Your task to perform on an android device: open app "DoorDash - Dasher" (install if not already installed) Image 0: 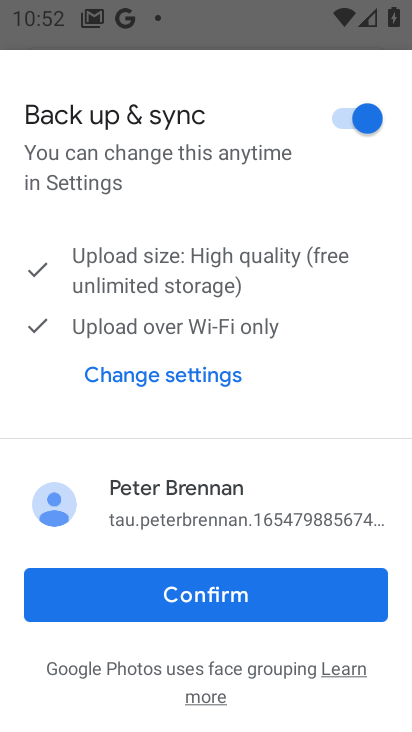
Step 0: press home button
Your task to perform on an android device: open app "DoorDash - Dasher" (install if not already installed) Image 1: 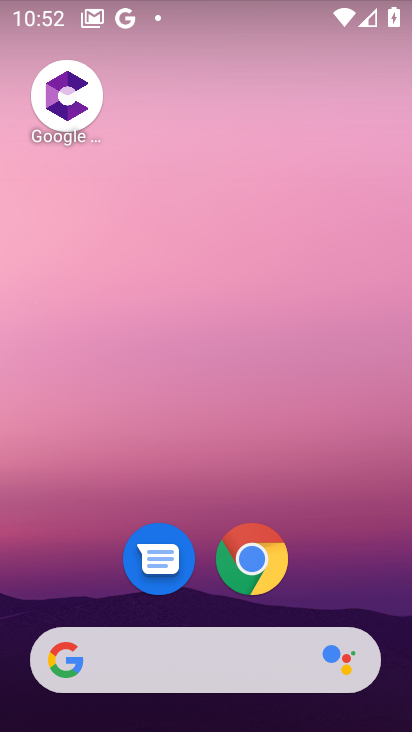
Step 1: drag from (96, 564) to (218, 2)
Your task to perform on an android device: open app "DoorDash - Dasher" (install if not already installed) Image 2: 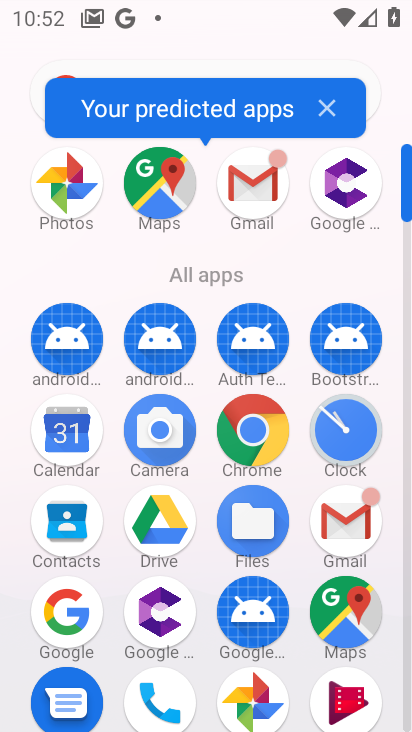
Step 2: drag from (181, 581) to (302, 33)
Your task to perform on an android device: open app "DoorDash - Dasher" (install if not already installed) Image 3: 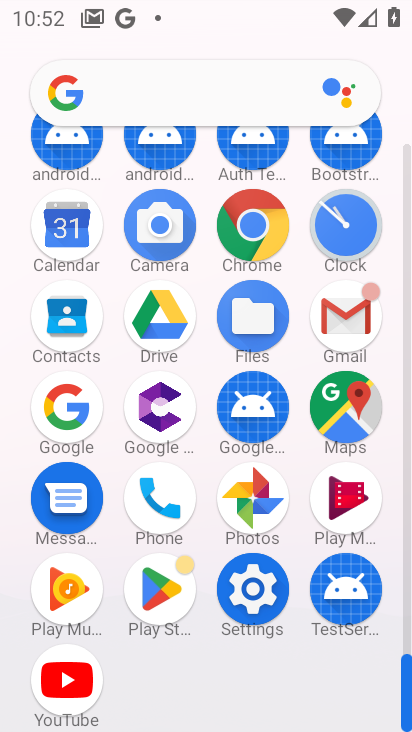
Step 3: click (163, 580)
Your task to perform on an android device: open app "DoorDash - Dasher" (install if not already installed) Image 4: 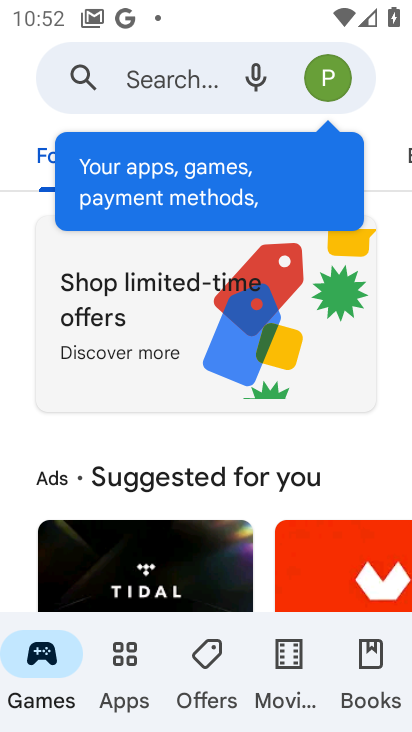
Step 4: click (122, 81)
Your task to perform on an android device: open app "DoorDash - Dasher" (install if not already installed) Image 5: 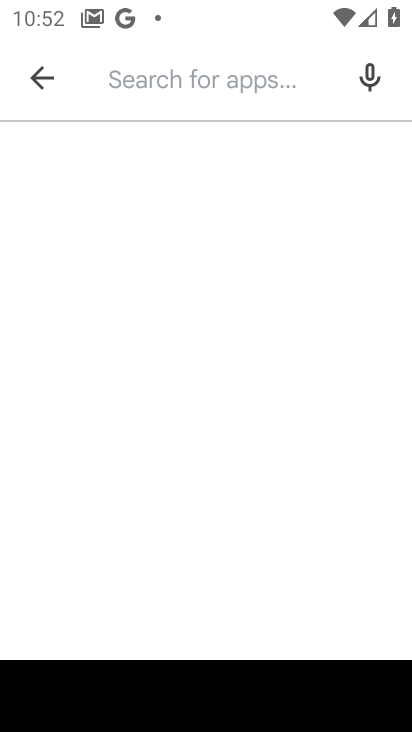
Step 5: type "door dash"
Your task to perform on an android device: open app "DoorDash - Dasher" (install if not already installed) Image 6: 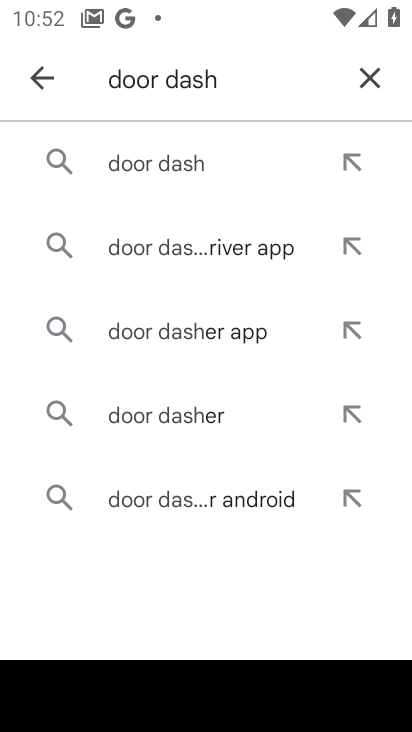
Step 6: click (183, 159)
Your task to perform on an android device: open app "DoorDash - Dasher" (install if not already installed) Image 7: 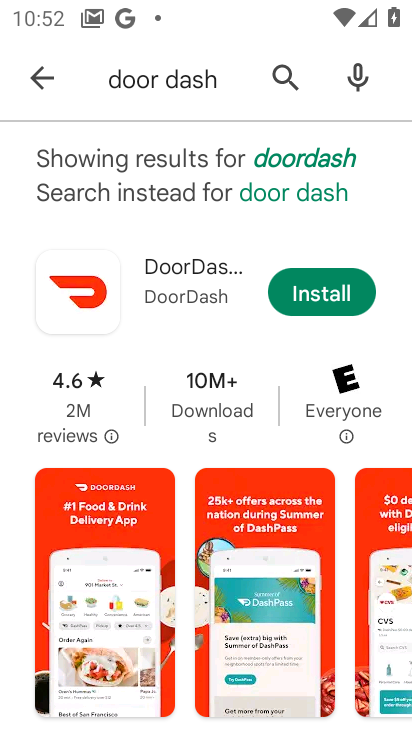
Step 7: drag from (151, 585) to (239, 73)
Your task to perform on an android device: open app "DoorDash - Dasher" (install if not already installed) Image 8: 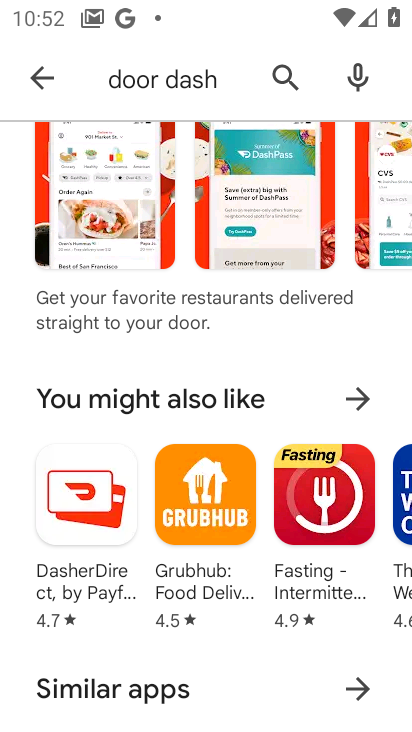
Step 8: drag from (147, 587) to (208, 206)
Your task to perform on an android device: open app "DoorDash - Dasher" (install if not already installed) Image 9: 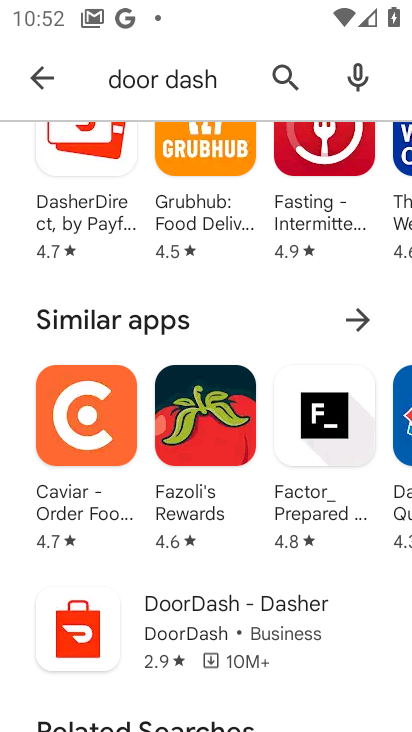
Step 9: click (137, 622)
Your task to perform on an android device: open app "DoorDash - Dasher" (install if not already installed) Image 10: 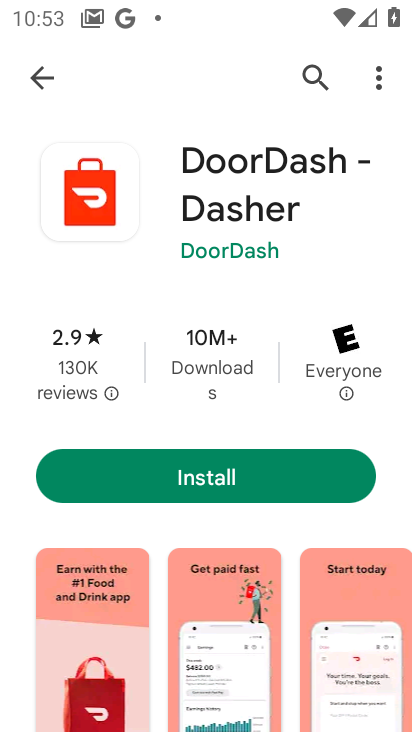
Step 10: click (179, 468)
Your task to perform on an android device: open app "DoorDash - Dasher" (install if not already installed) Image 11: 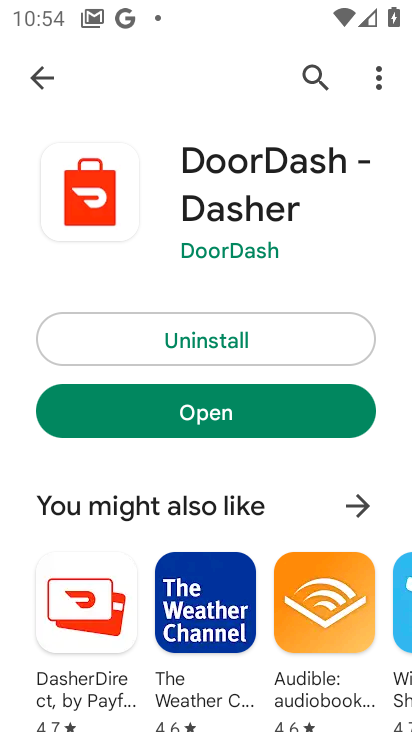
Step 11: click (189, 413)
Your task to perform on an android device: open app "DoorDash - Dasher" (install if not already installed) Image 12: 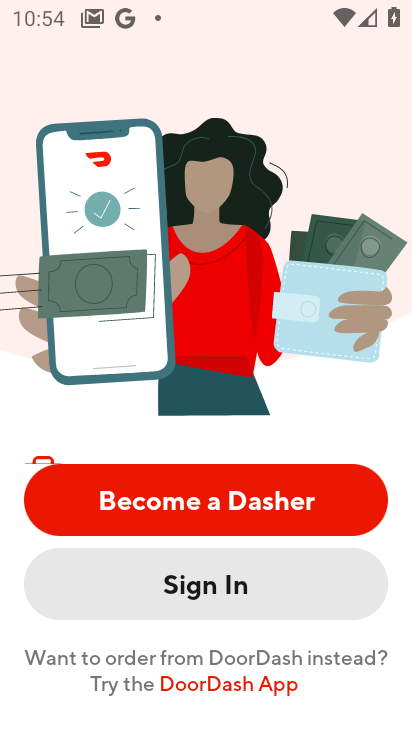
Step 12: task complete